Your task to perform on an android device: Go to internet settings Image 0: 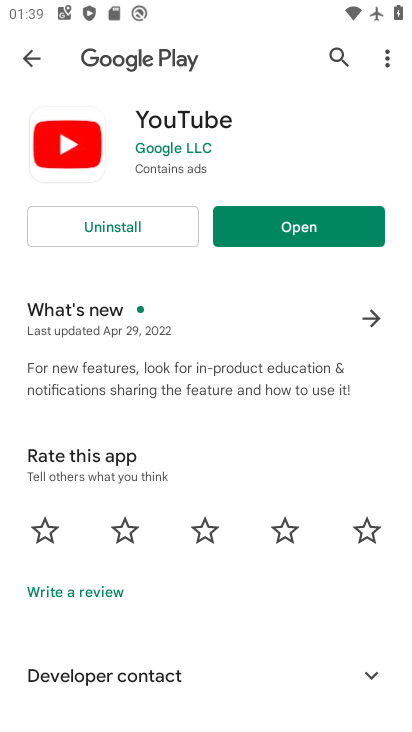
Step 0: press home button
Your task to perform on an android device: Go to internet settings Image 1: 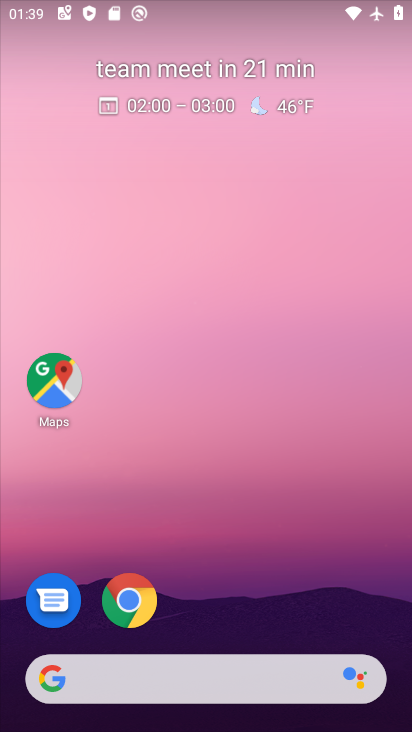
Step 1: drag from (240, 650) to (198, 5)
Your task to perform on an android device: Go to internet settings Image 2: 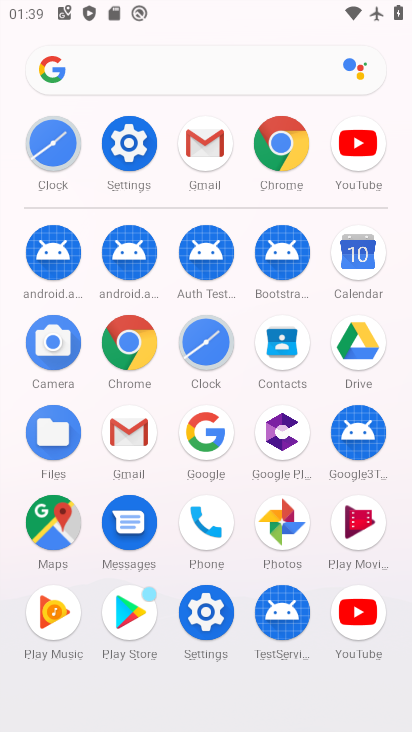
Step 2: click (136, 129)
Your task to perform on an android device: Go to internet settings Image 3: 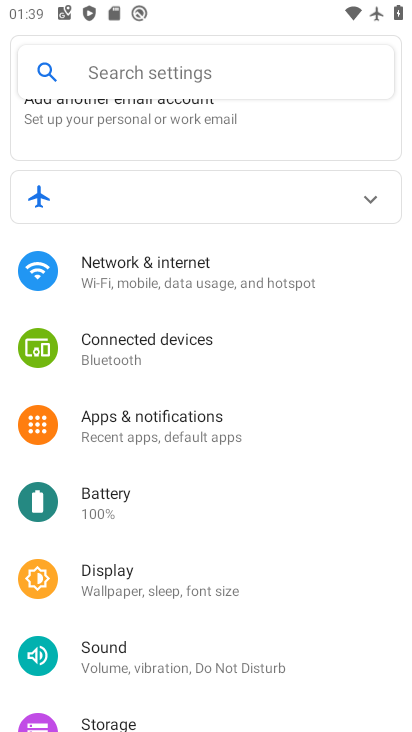
Step 3: click (153, 191)
Your task to perform on an android device: Go to internet settings Image 4: 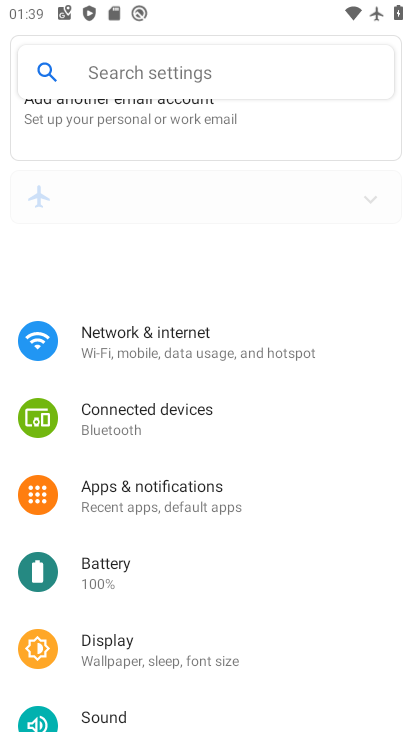
Step 4: drag from (153, 191) to (134, 98)
Your task to perform on an android device: Go to internet settings Image 5: 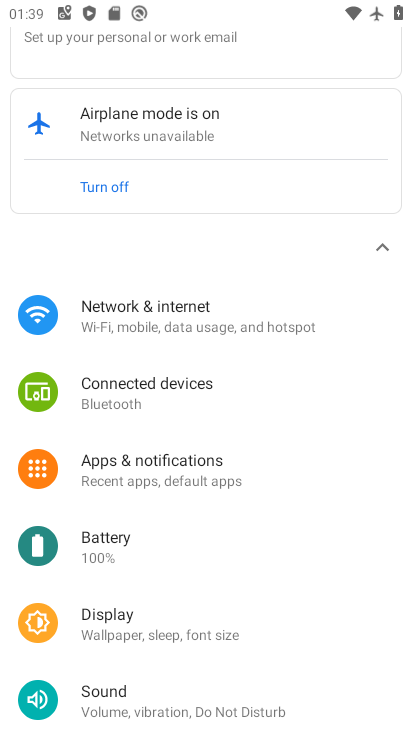
Step 5: click (132, 307)
Your task to perform on an android device: Go to internet settings Image 6: 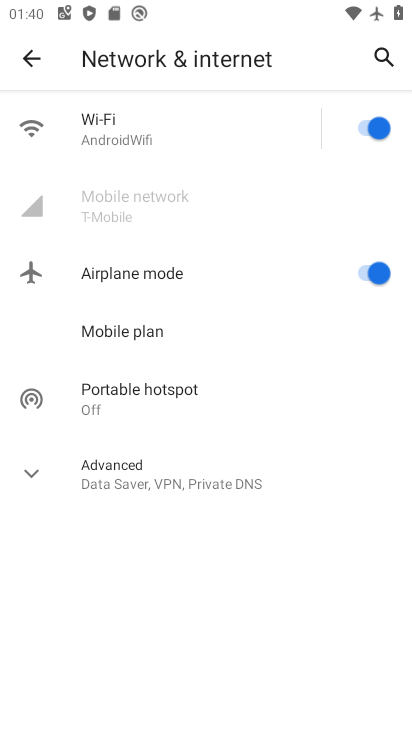
Step 6: click (144, 472)
Your task to perform on an android device: Go to internet settings Image 7: 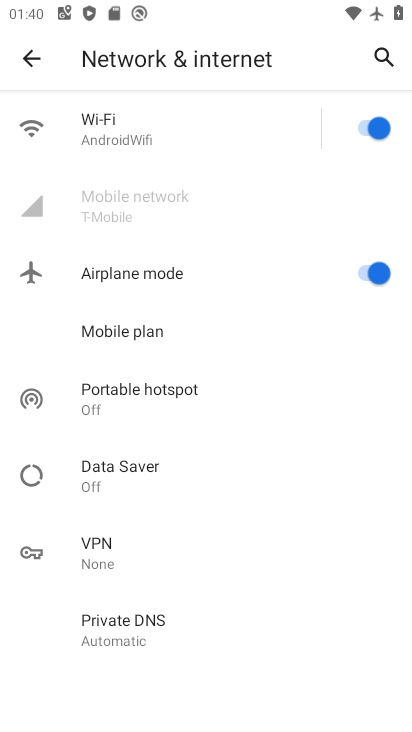
Step 7: task complete